Your task to perform on an android device: Search for seafood restaurants on Google Maps Image 0: 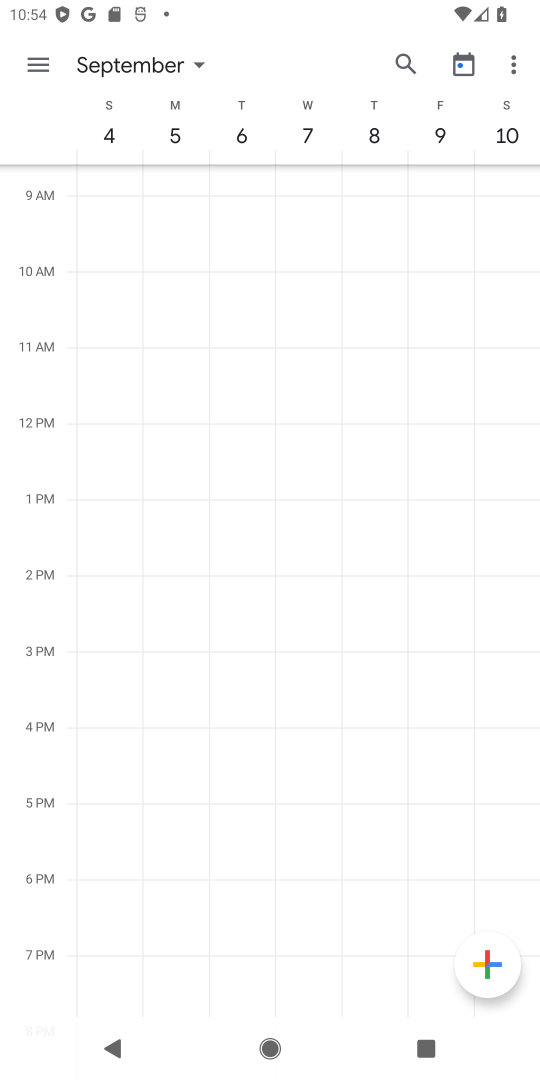
Step 0: press home button
Your task to perform on an android device: Search for seafood restaurants on Google Maps Image 1: 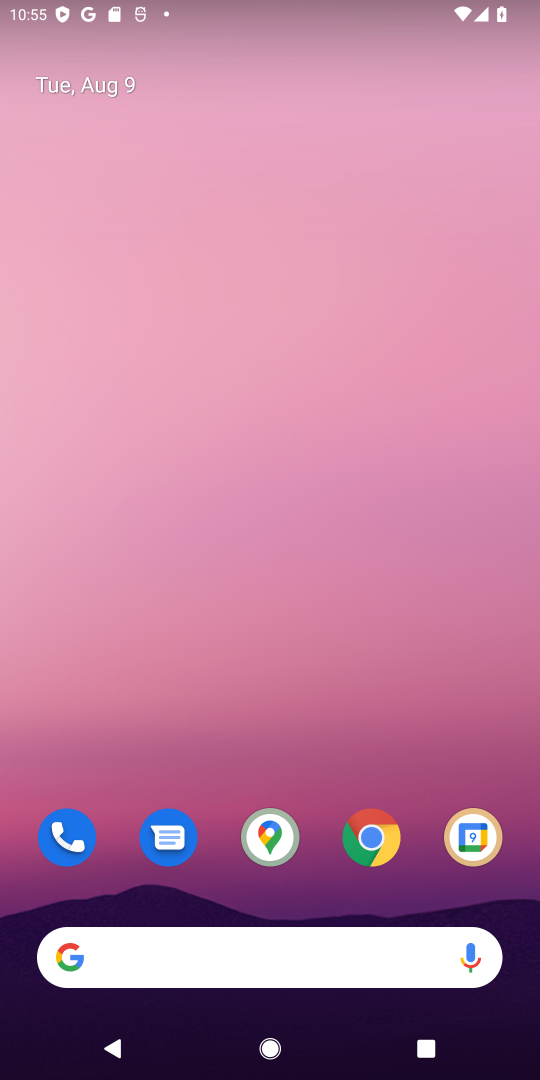
Step 1: drag from (284, 657) to (263, 100)
Your task to perform on an android device: Search for seafood restaurants on Google Maps Image 2: 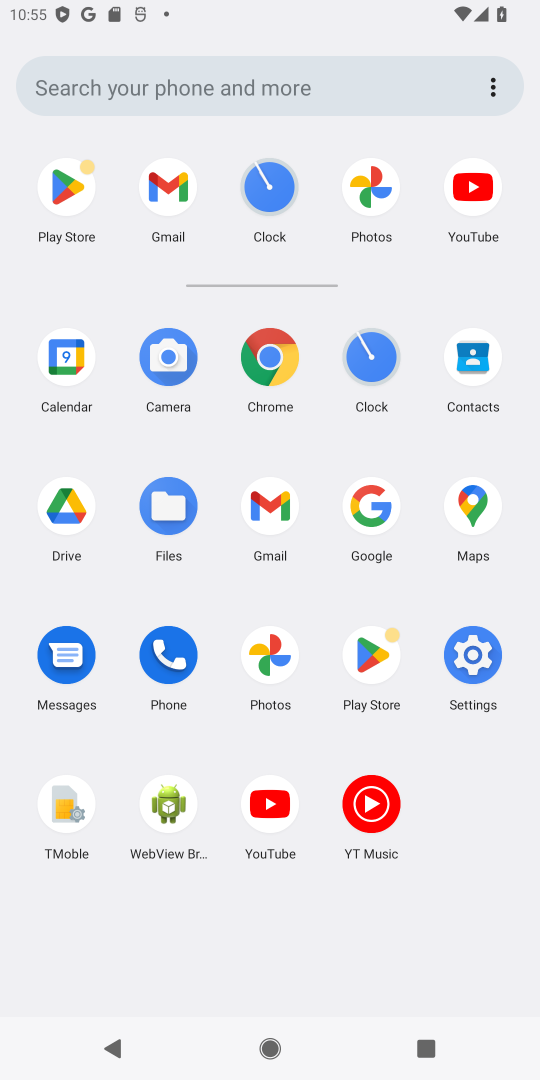
Step 2: click (461, 506)
Your task to perform on an android device: Search for seafood restaurants on Google Maps Image 3: 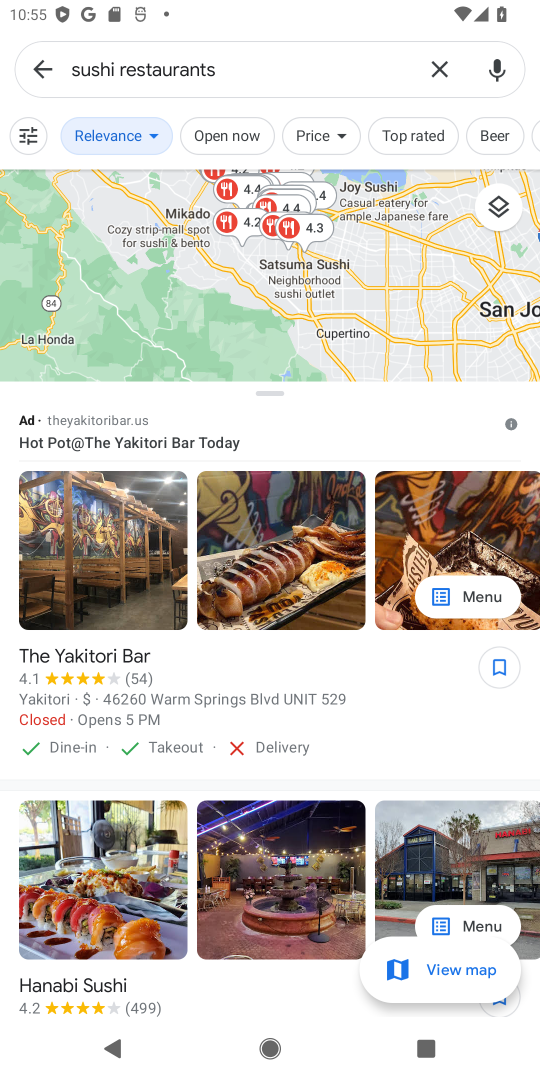
Step 3: click (439, 60)
Your task to perform on an android device: Search for seafood restaurants on Google Maps Image 4: 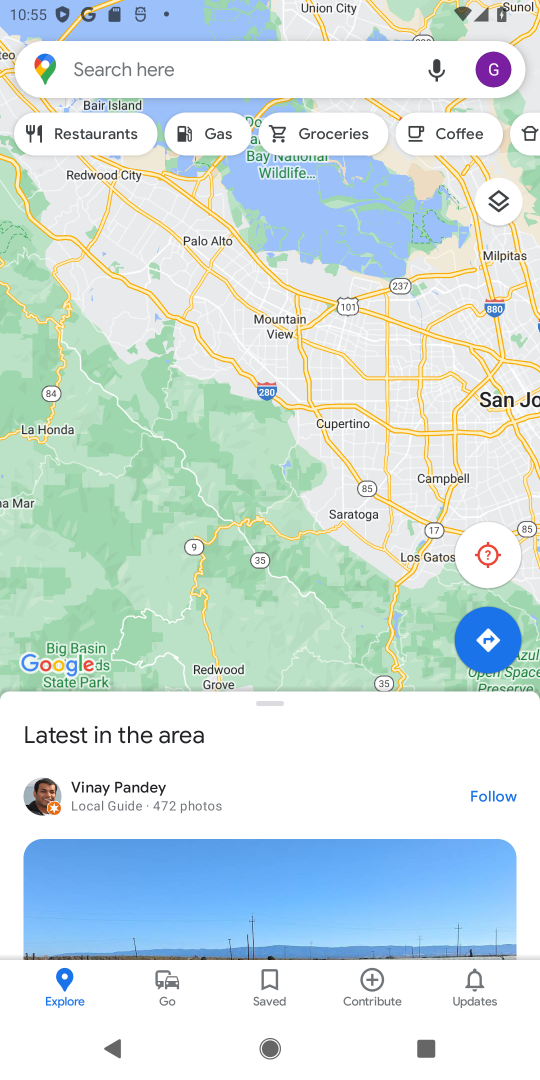
Step 4: click (278, 60)
Your task to perform on an android device: Search for seafood restaurants on Google Maps Image 5: 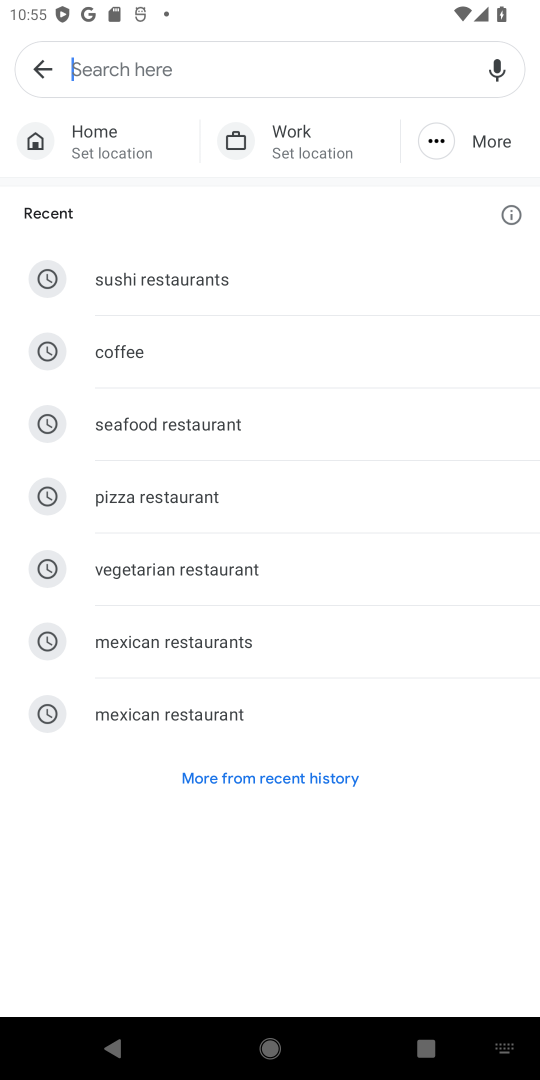
Step 5: type "seafood restaurants"
Your task to perform on an android device: Search for seafood restaurants on Google Maps Image 6: 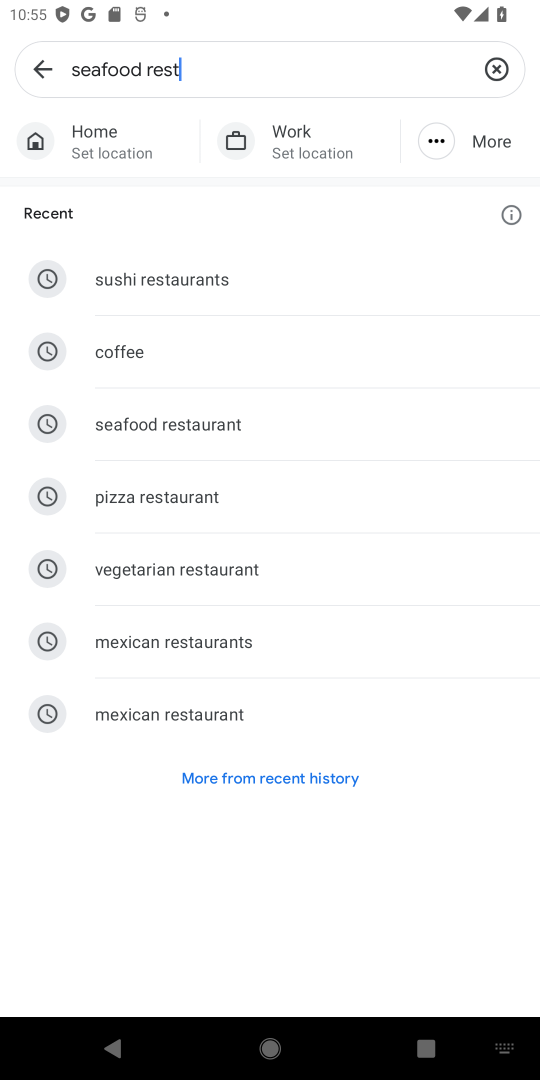
Step 6: type ""
Your task to perform on an android device: Search for seafood restaurants on Google Maps Image 7: 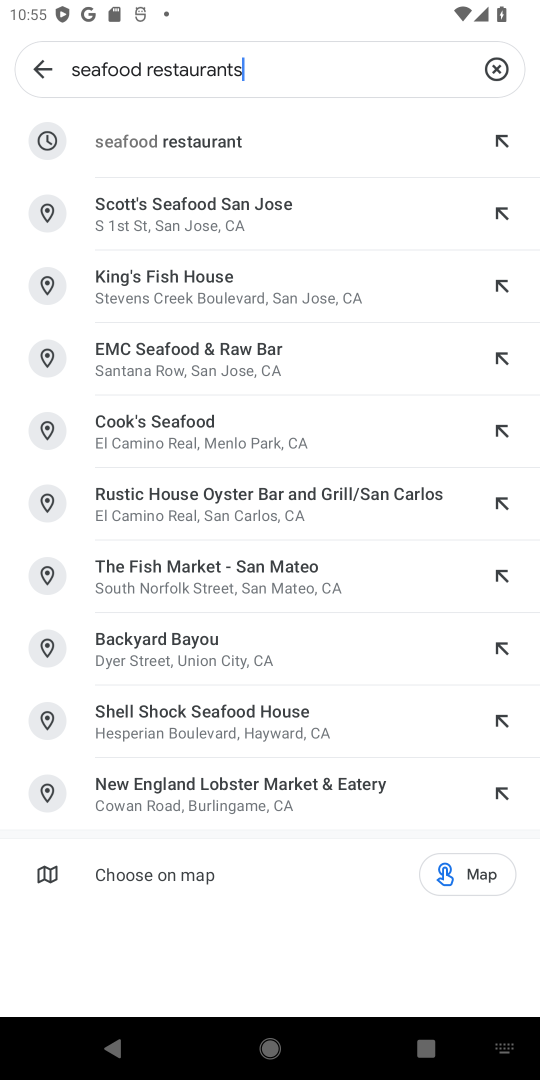
Step 7: click (143, 139)
Your task to perform on an android device: Search for seafood restaurants on Google Maps Image 8: 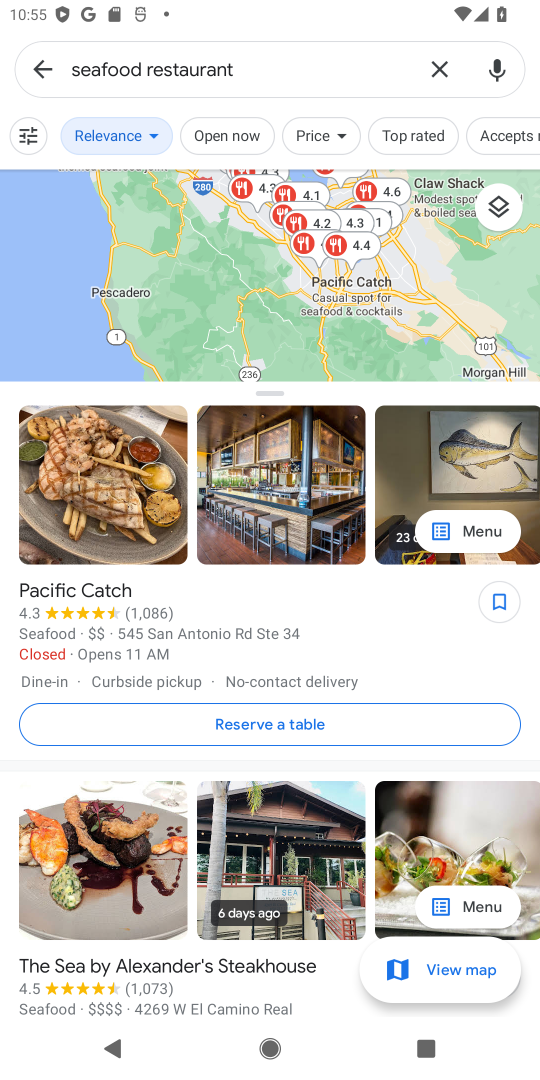
Step 8: task complete